Your task to perform on an android device: What's the weather going to be this weekend? Image 0: 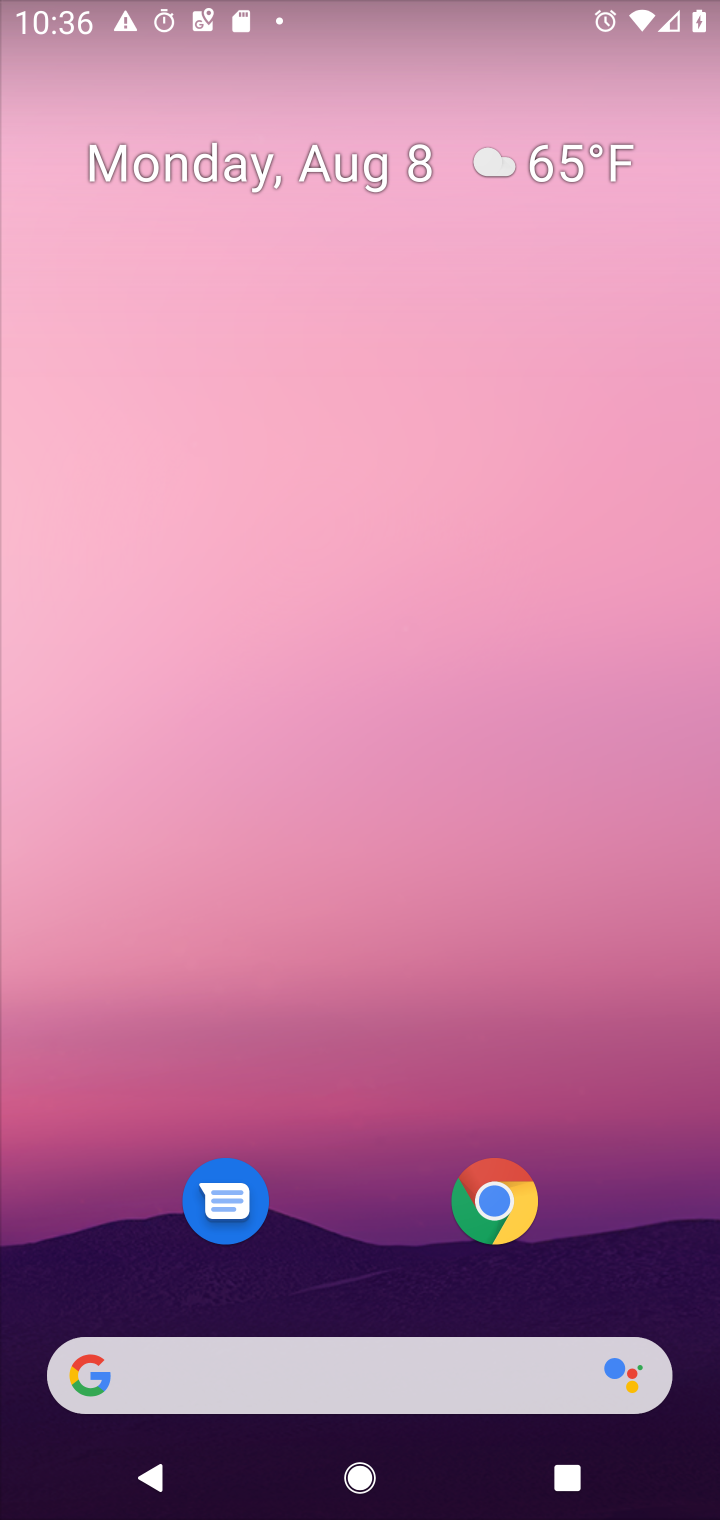
Step 0: press home button
Your task to perform on an android device: What's the weather going to be this weekend? Image 1: 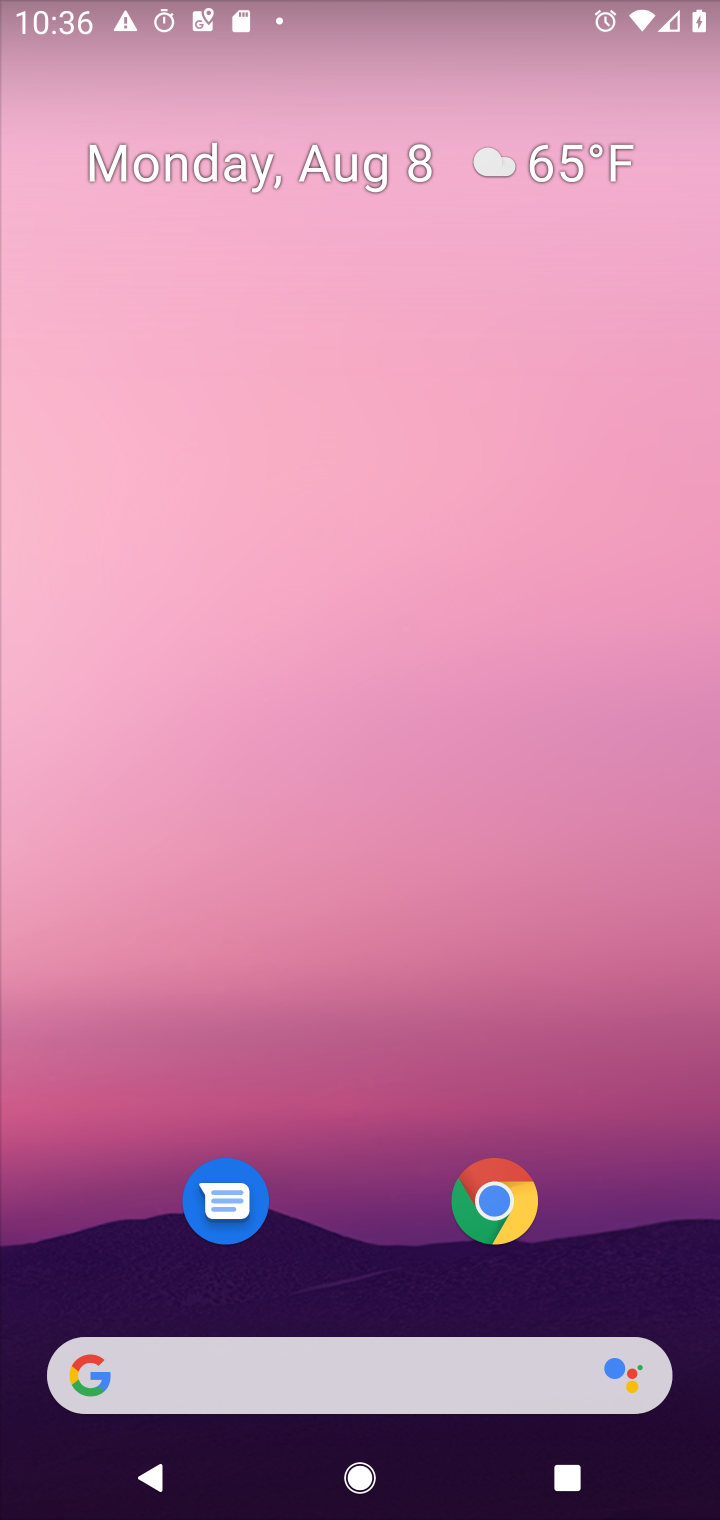
Step 1: click (354, 1371)
Your task to perform on an android device: What's the weather going to be this weekend? Image 2: 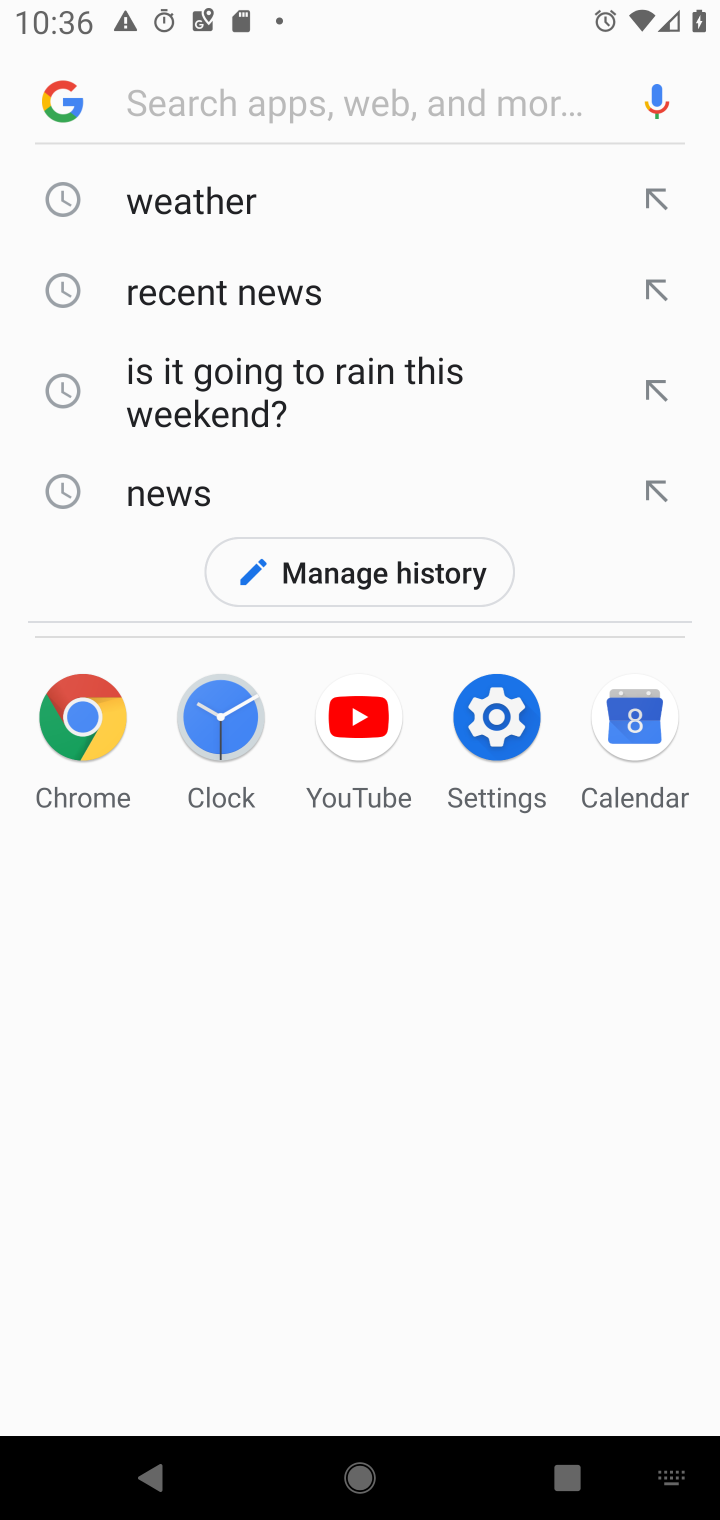
Step 2: click (217, 211)
Your task to perform on an android device: What's the weather going to be this weekend? Image 3: 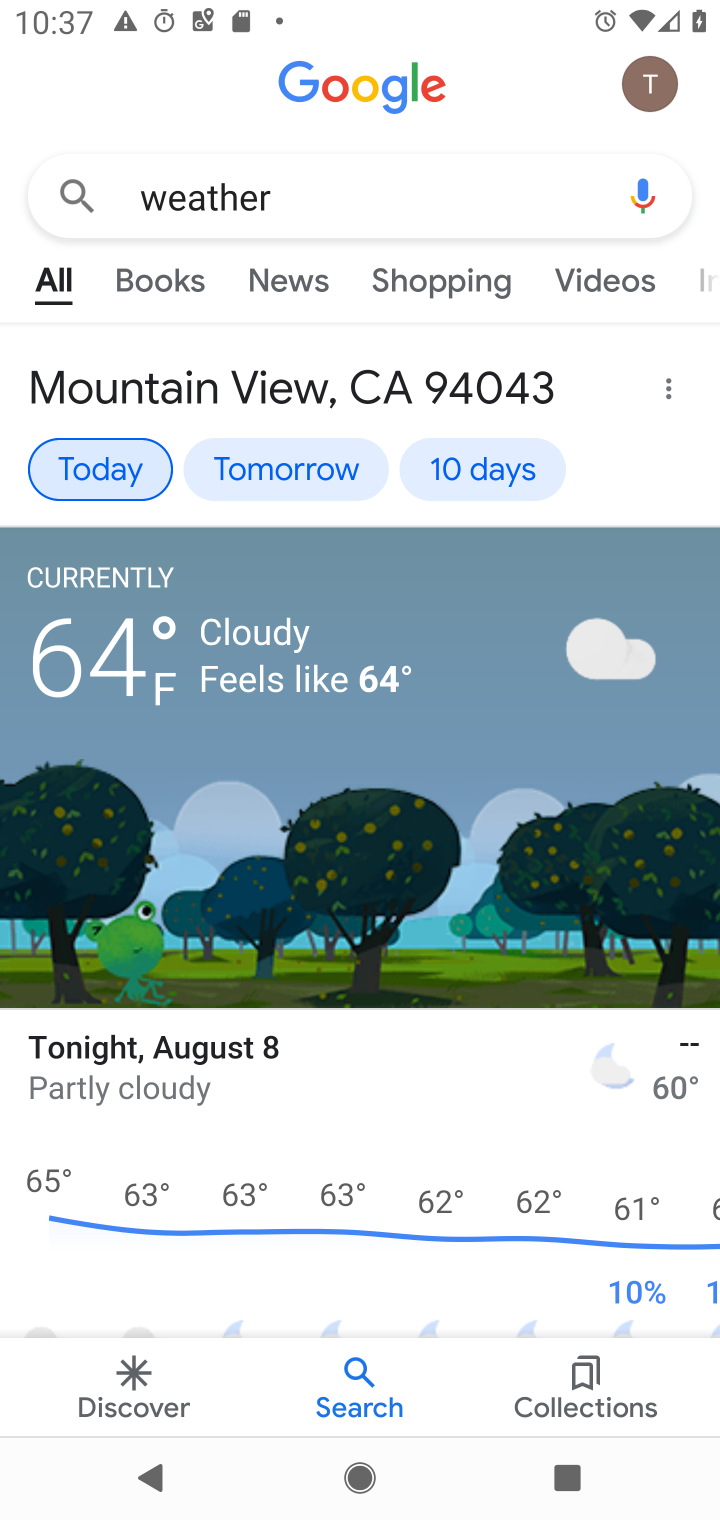
Step 3: click (492, 467)
Your task to perform on an android device: What's the weather going to be this weekend? Image 4: 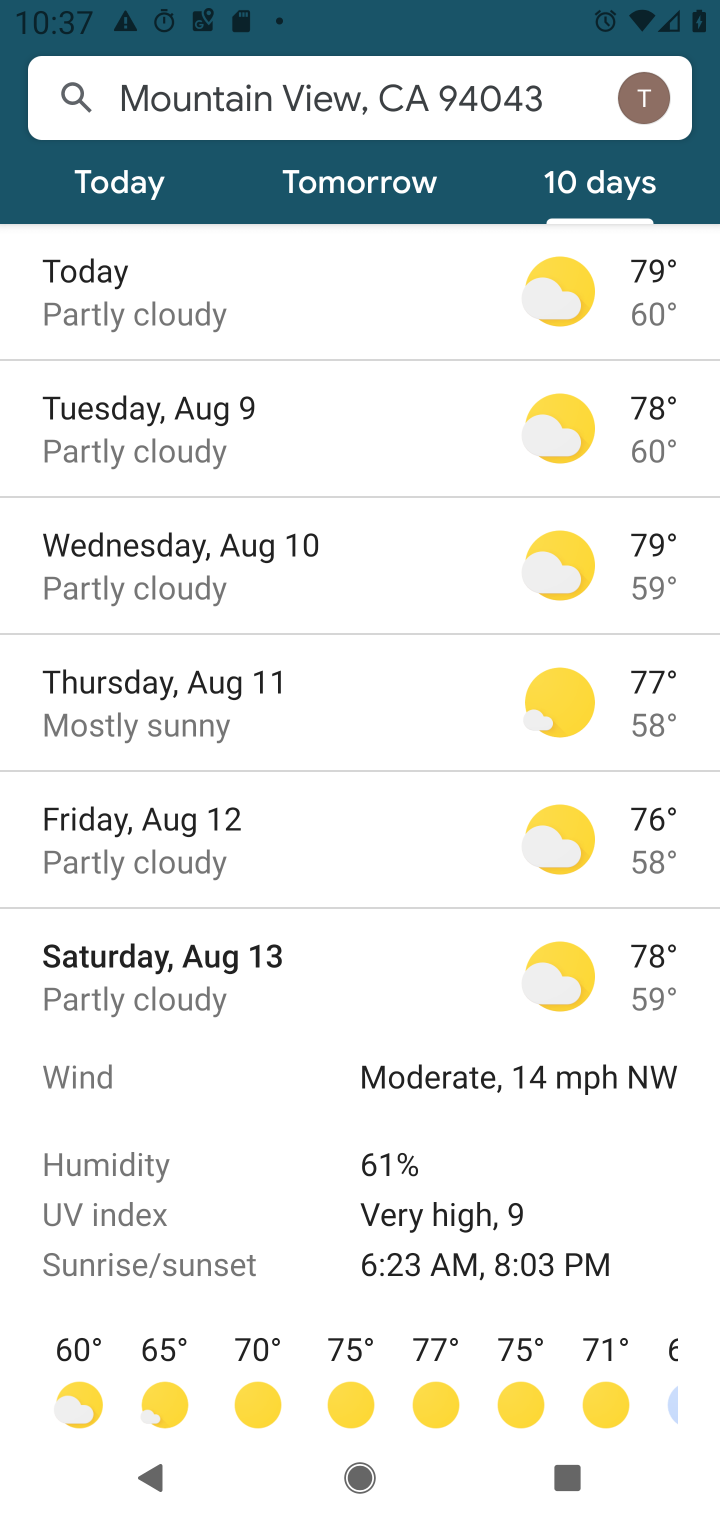
Step 4: task complete